Your task to perform on an android device: turn off notifications settings in the gmail app Image 0: 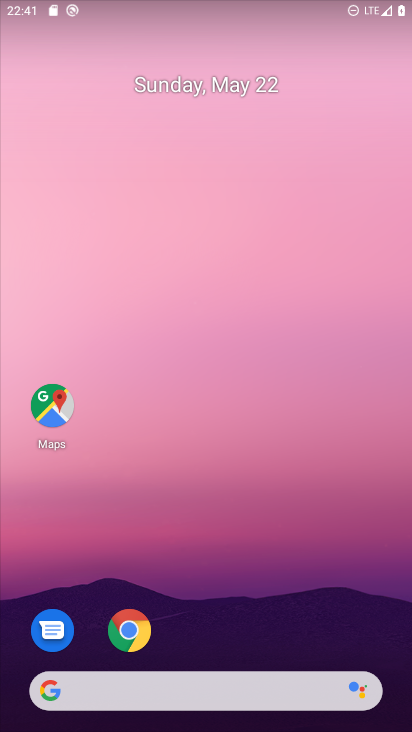
Step 0: press home button
Your task to perform on an android device: turn off notifications settings in the gmail app Image 1: 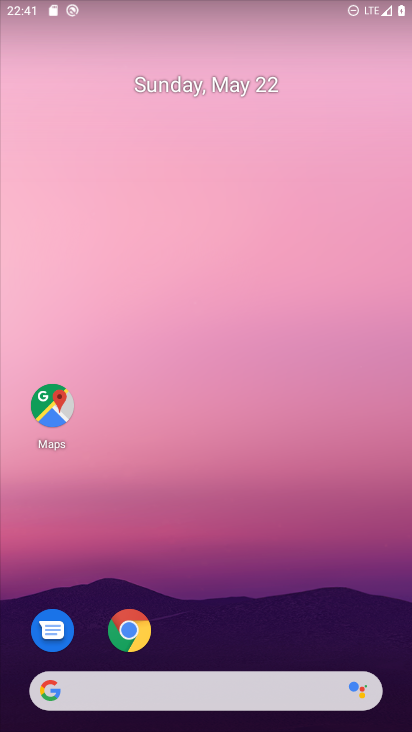
Step 1: drag from (182, 691) to (347, 267)
Your task to perform on an android device: turn off notifications settings in the gmail app Image 2: 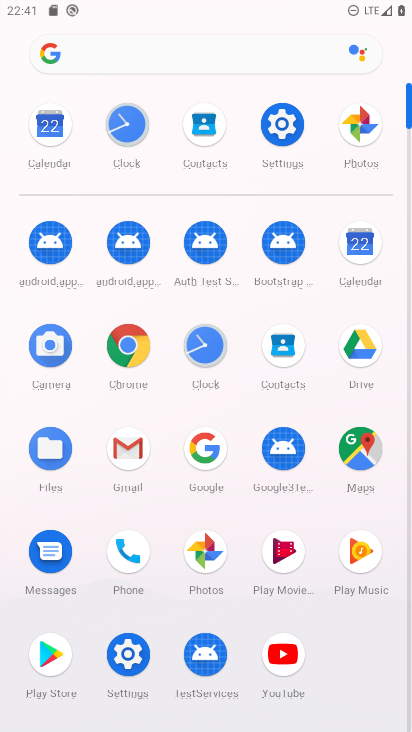
Step 2: click (132, 457)
Your task to perform on an android device: turn off notifications settings in the gmail app Image 3: 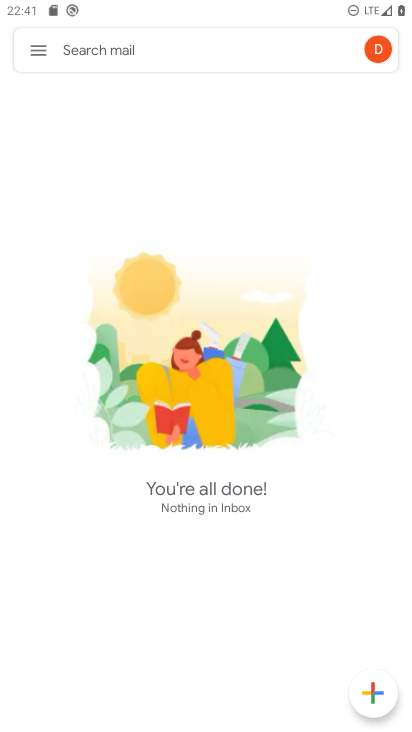
Step 3: click (33, 41)
Your task to perform on an android device: turn off notifications settings in the gmail app Image 4: 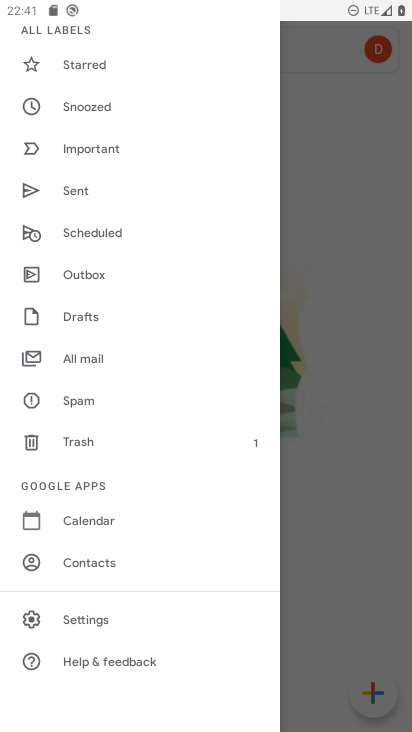
Step 4: click (71, 623)
Your task to perform on an android device: turn off notifications settings in the gmail app Image 5: 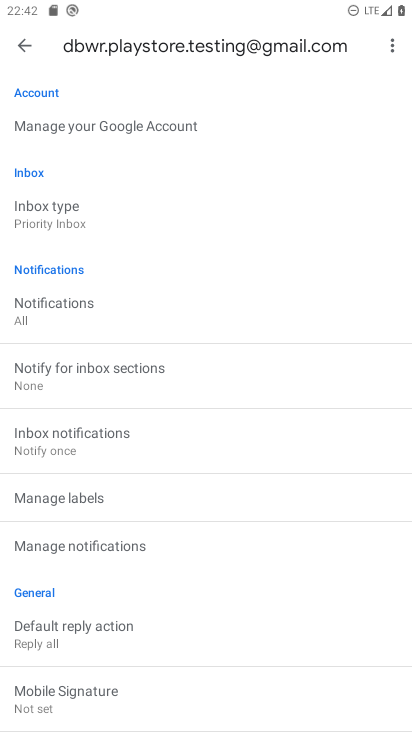
Step 5: click (59, 311)
Your task to perform on an android device: turn off notifications settings in the gmail app Image 6: 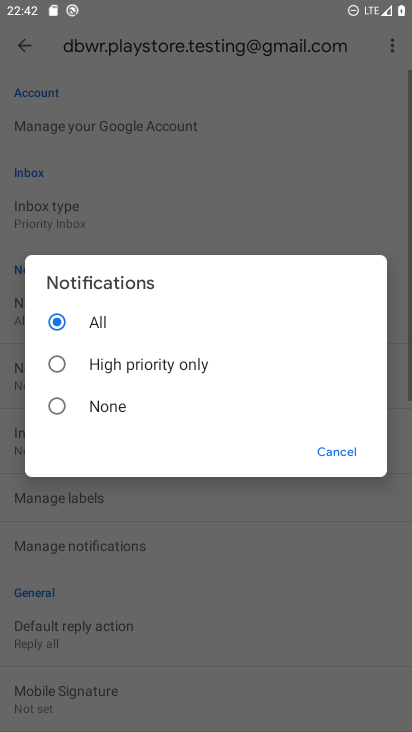
Step 6: click (59, 398)
Your task to perform on an android device: turn off notifications settings in the gmail app Image 7: 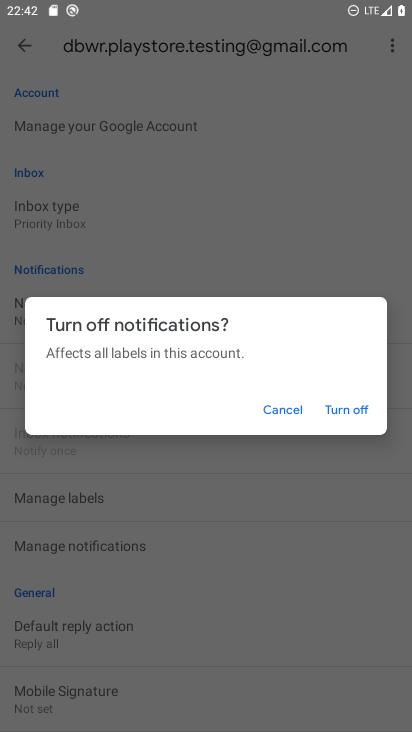
Step 7: click (344, 404)
Your task to perform on an android device: turn off notifications settings in the gmail app Image 8: 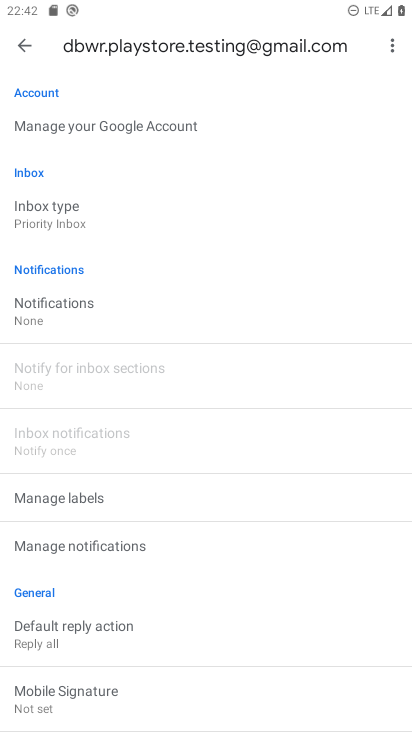
Step 8: task complete